Your task to perform on an android device: star an email in the gmail app Image 0: 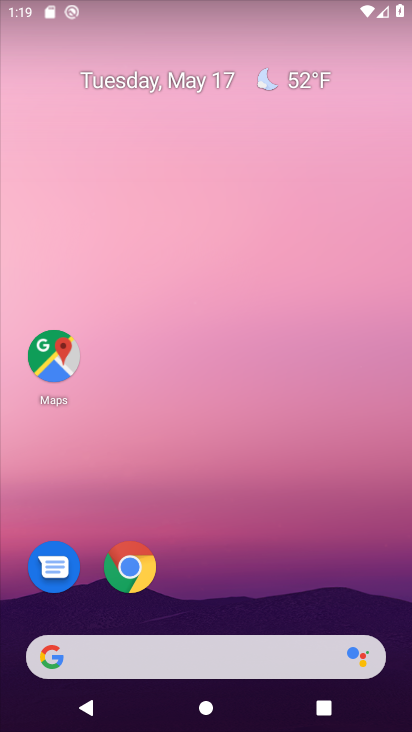
Step 0: drag from (241, 441) to (307, 12)
Your task to perform on an android device: star an email in the gmail app Image 1: 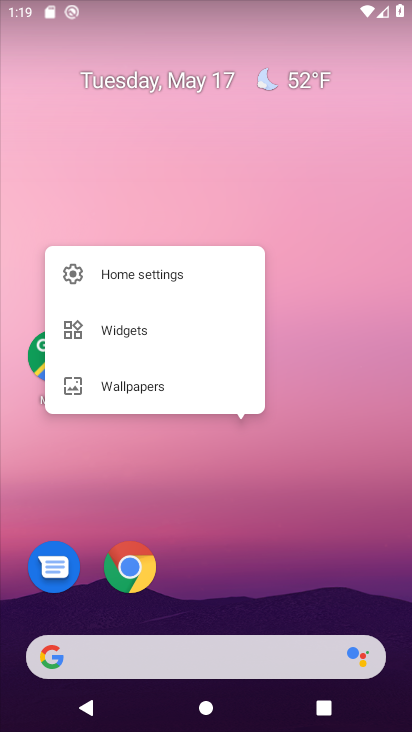
Step 1: click (262, 527)
Your task to perform on an android device: star an email in the gmail app Image 2: 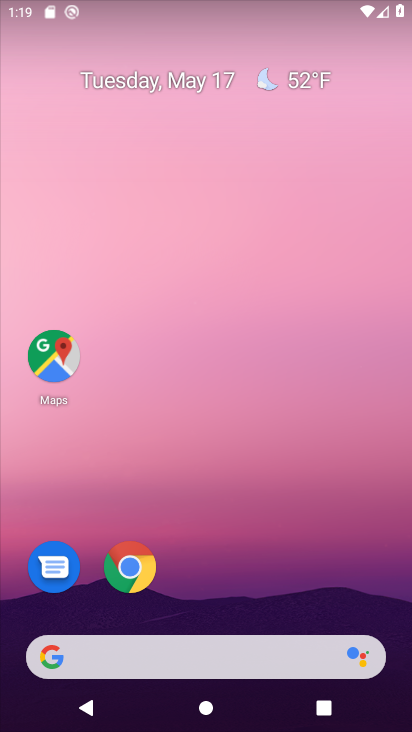
Step 2: drag from (207, 576) to (223, 24)
Your task to perform on an android device: star an email in the gmail app Image 3: 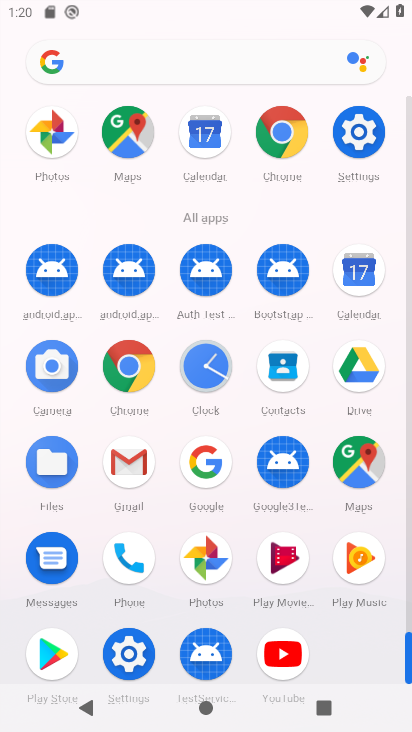
Step 3: click (128, 477)
Your task to perform on an android device: star an email in the gmail app Image 4: 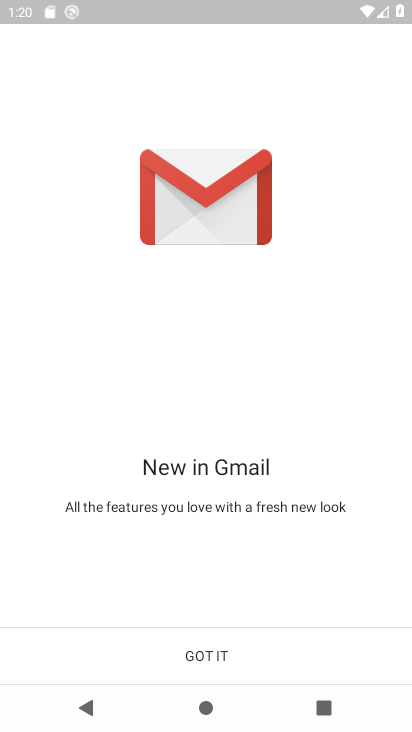
Step 4: click (207, 651)
Your task to perform on an android device: star an email in the gmail app Image 5: 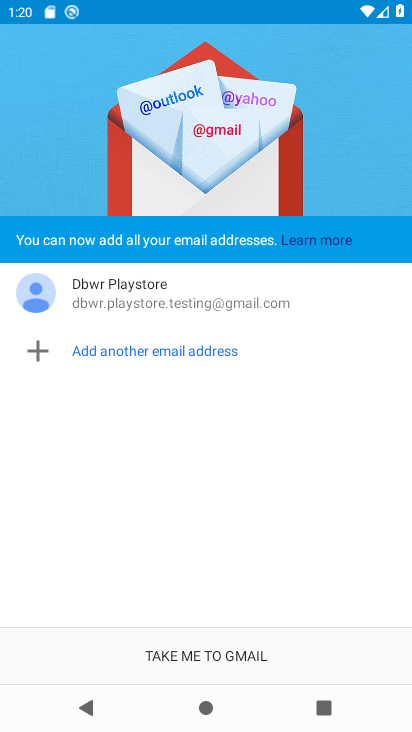
Step 5: click (208, 652)
Your task to perform on an android device: star an email in the gmail app Image 6: 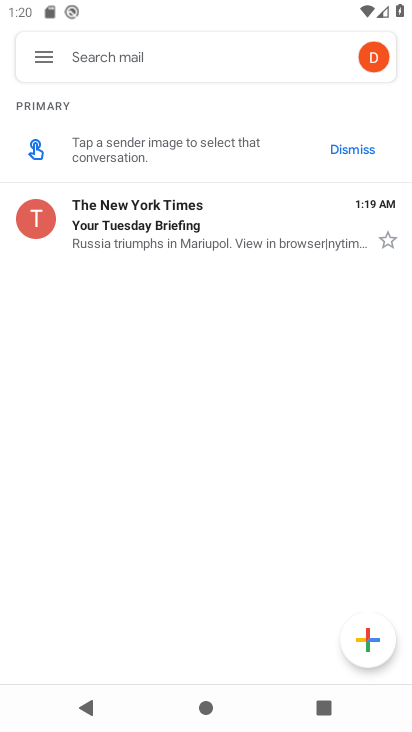
Step 6: click (391, 243)
Your task to perform on an android device: star an email in the gmail app Image 7: 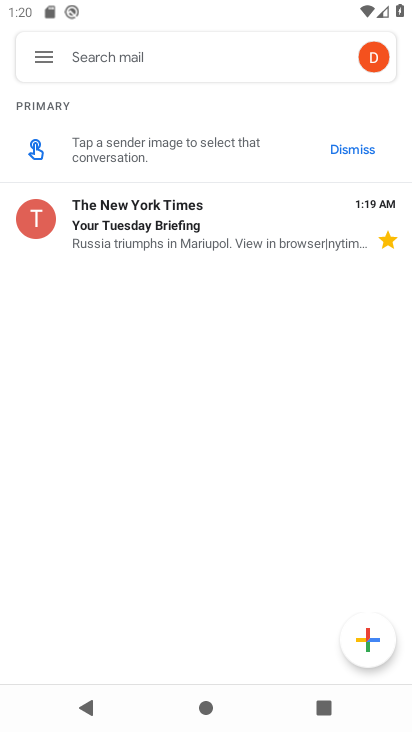
Step 7: task complete